Your task to perform on an android device: Go to calendar. Show me events next week Image 0: 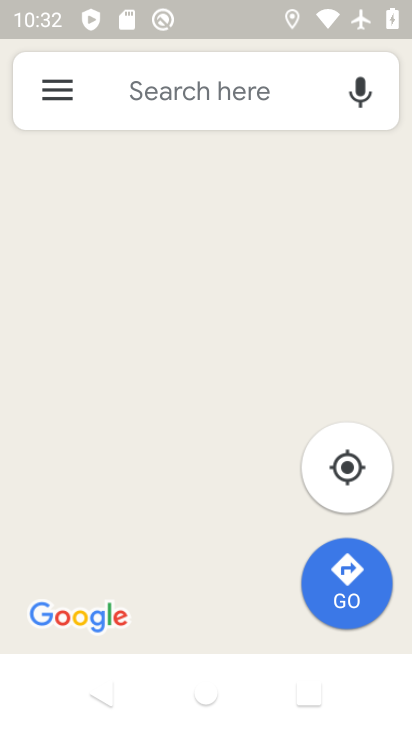
Step 0: press home button
Your task to perform on an android device: Go to calendar. Show me events next week Image 1: 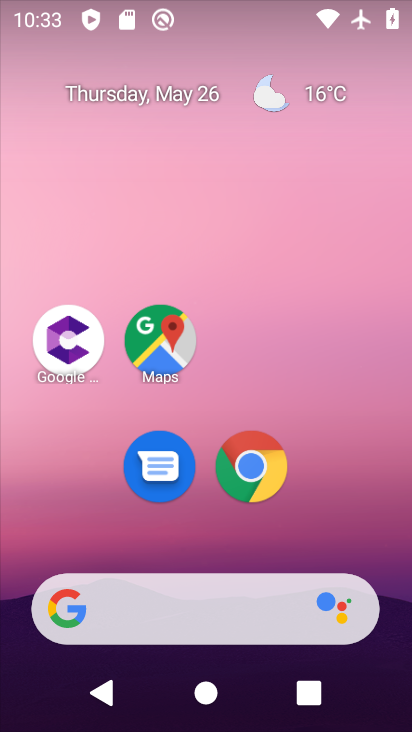
Step 1: drag from (338, 509) to (149, 23)
Your task to perform on an android device: Go to calendar. Show me events next week Image 2: 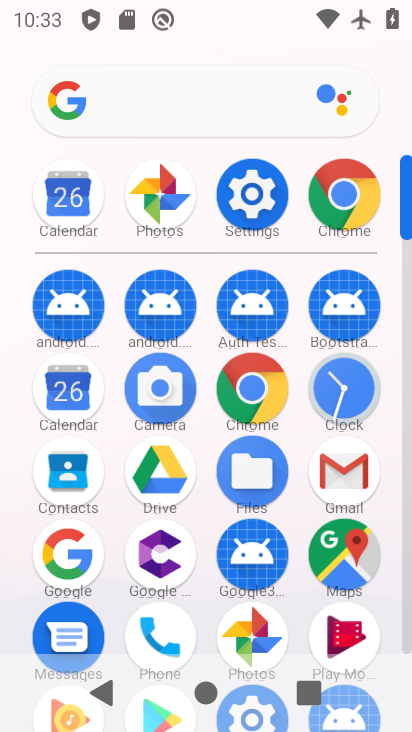
Step 2: click (65, 385)
Your task to perform on an android device: Go to calendar. Show me events next week Image 3: 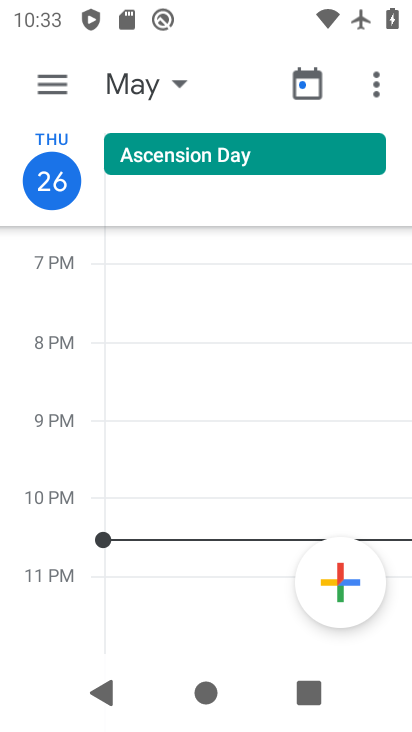
Step 3: click (49, 77)
Your task to perform on an android device: Go to calendar. Show me events next week Image 4: 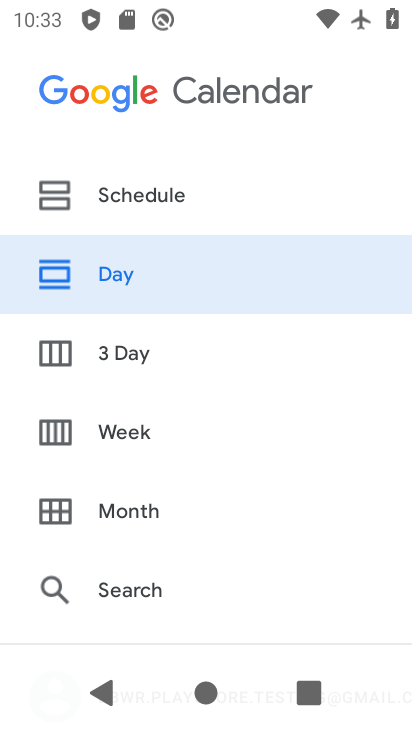
Step 4: click (125, 433)
Your task to perform on an android device: Go to calendar. Show me events next week Image 5: 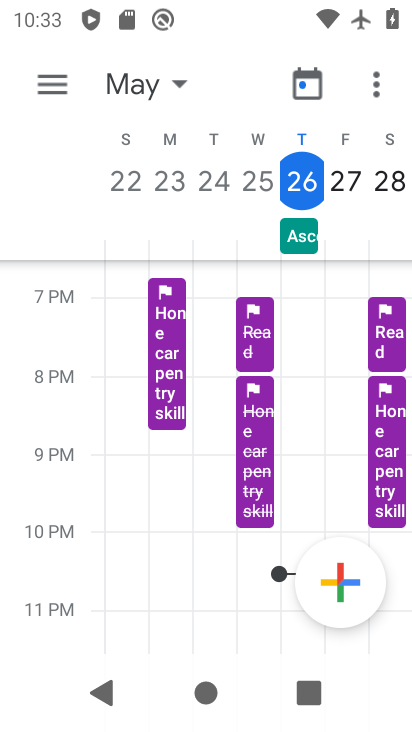
Step 5: click (175, 80)
Your task to perform on an android device: Go to calendar. Show me events next week Image 6: 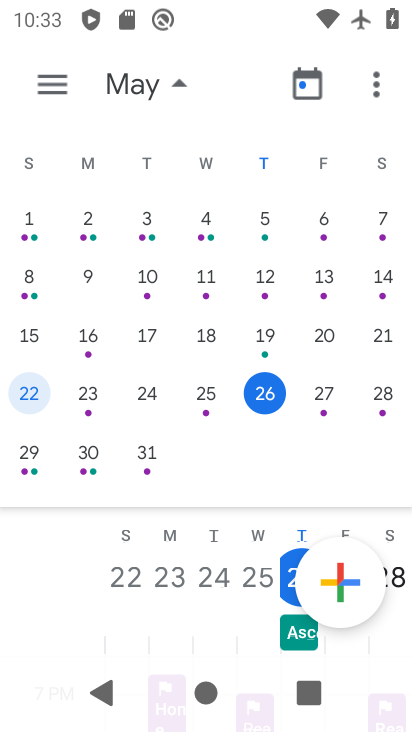
Step 6: click (135, 448)
Your task to perform on an android device: Go to calendar. Show me events next week Image 7: 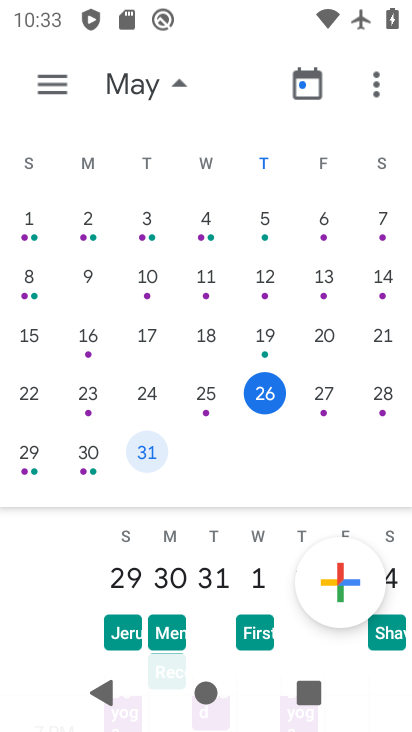
Step 7: task complete